Your task to perform on an android device: Show me popular videos on Youtube Image 0: 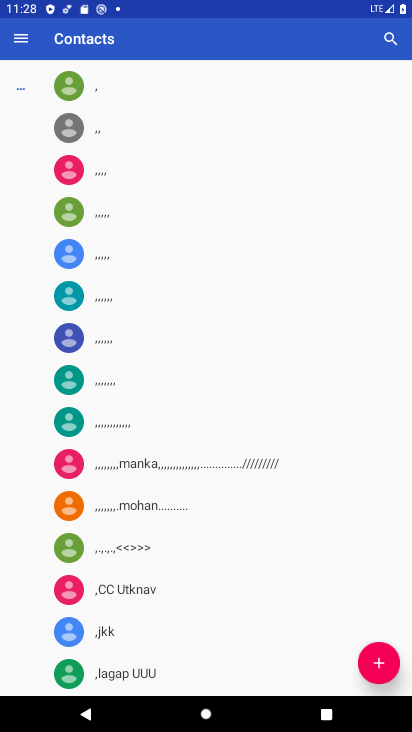
Step 0: press home button
Your task to perform on an android device: Show me popular videos on Youtube Image 1: 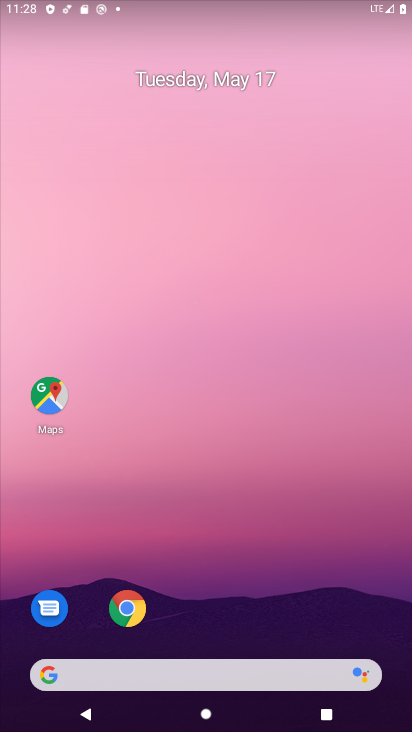
Step 1: drag from (272, 588) to (236, 108)
Your task to perform on an android device: Show me popular videos on Youtube Image 2: 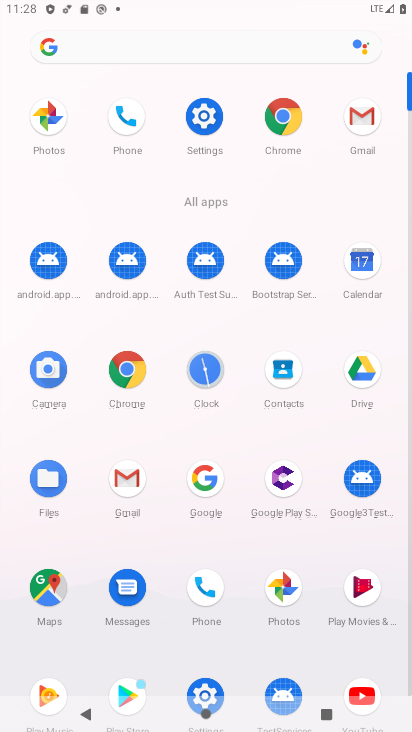
Step 2: click (370, 686)
Your task to perform on an android device: Show me popular videos on Youtube Image 3: 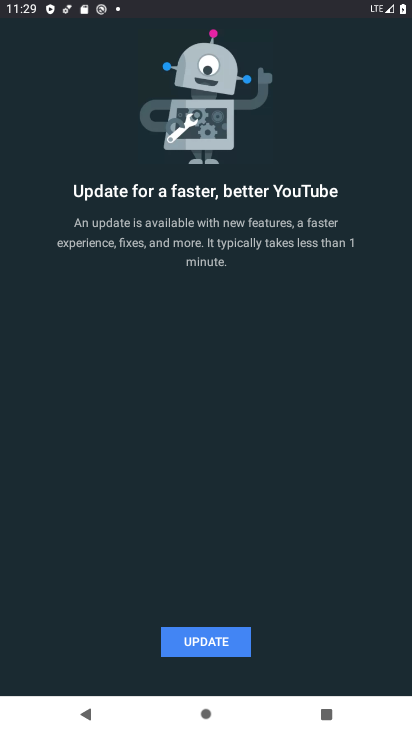
Step 3: click (220, 634)
Your task to perform on an android device: Show me popular videos on Youtube Image 4: 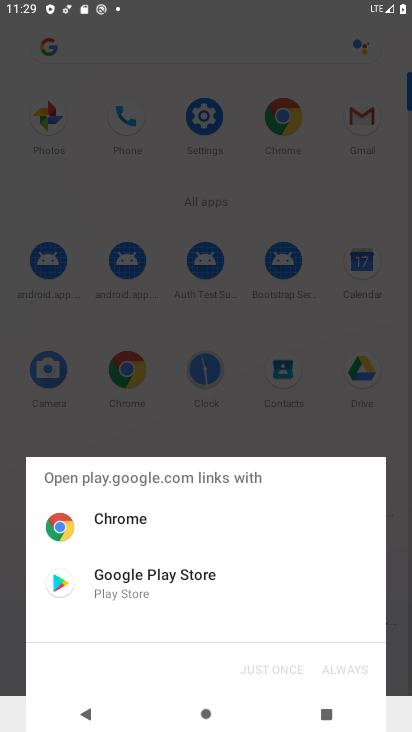
Step 4: click (151, 588)
Your task to perform on an android device: Show me popular videos on Youtube Image 5: 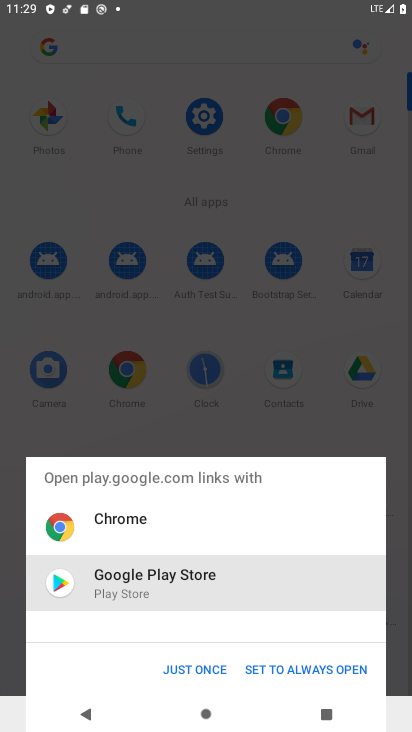
Step 5: click (198, 672)
Your task to perform on an android device: Show me popular videos on Youtube Image 6: 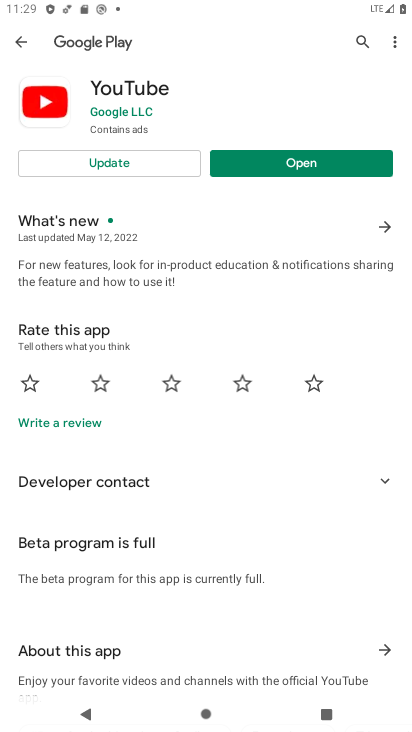
Step 6: click (155, 168)
Your task to perform on an android device: Show me popular videos on Youtube Image 7: 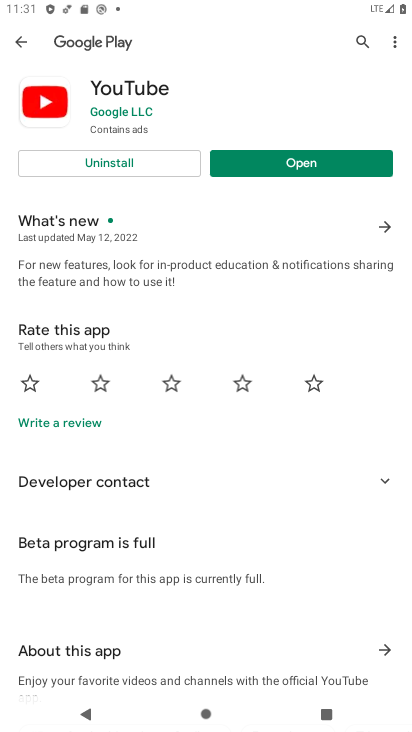
Step 7: click (306, 165)
Your task to perform on an android device: Show me popular videos on Youtube Image 8: 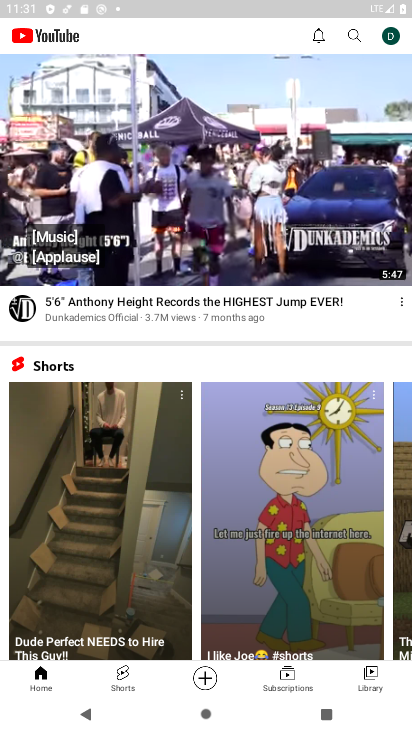
Step 8: drag from (183, 92) to (161, 541)
Your task to perform on an android device: Show me popular videos on Youtube Image 9: 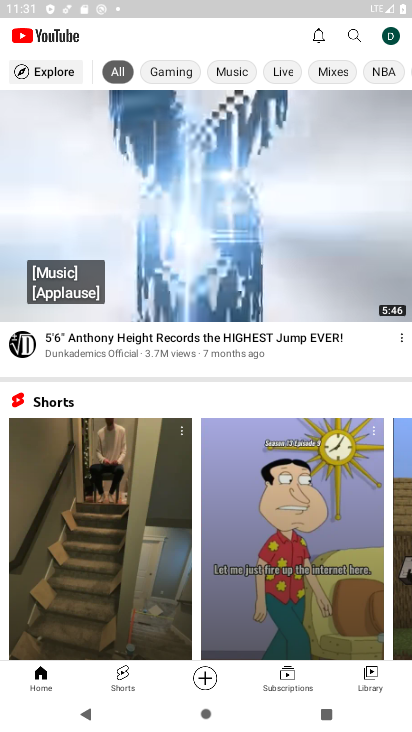
Step 9: click (48, 68)
Your task to perform on an android device: Show me popular videos on Youtube Image 10: 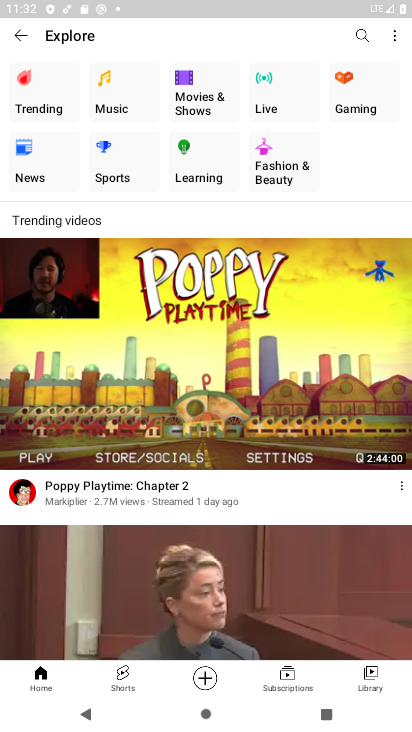
Step 10: click (34, 96)
Your task to perform on an android device: Show me popular videos on Youtube Image 11: 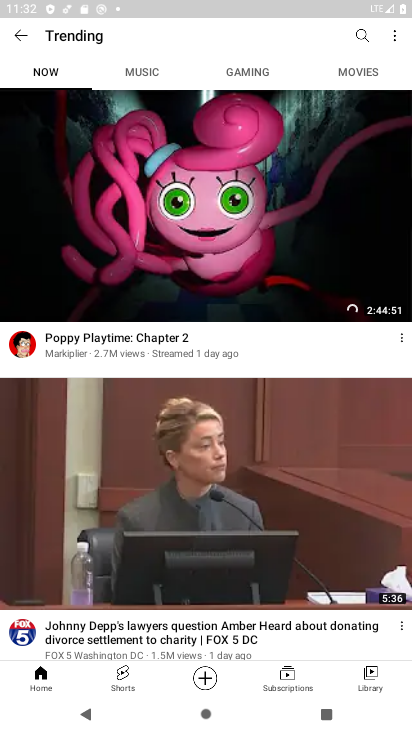
Step 11: task complete